Your task to perform on an android device: Show the shopping cart on newegg. Image 0: 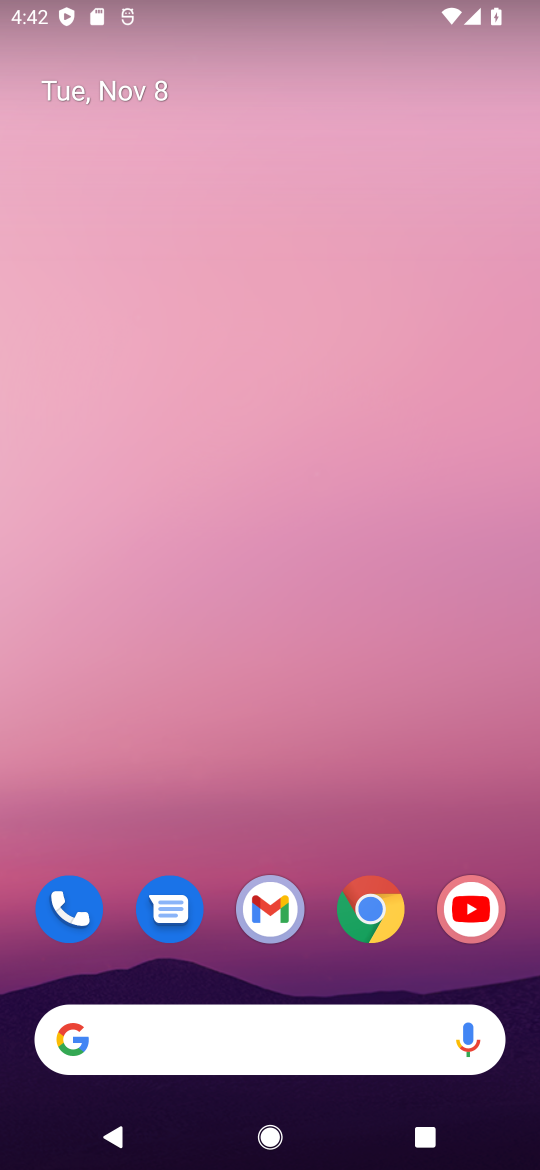
Step 0: click (534, 1035)
Your task to perform on an android device: Show the shopping cart on newegg. Image 1: 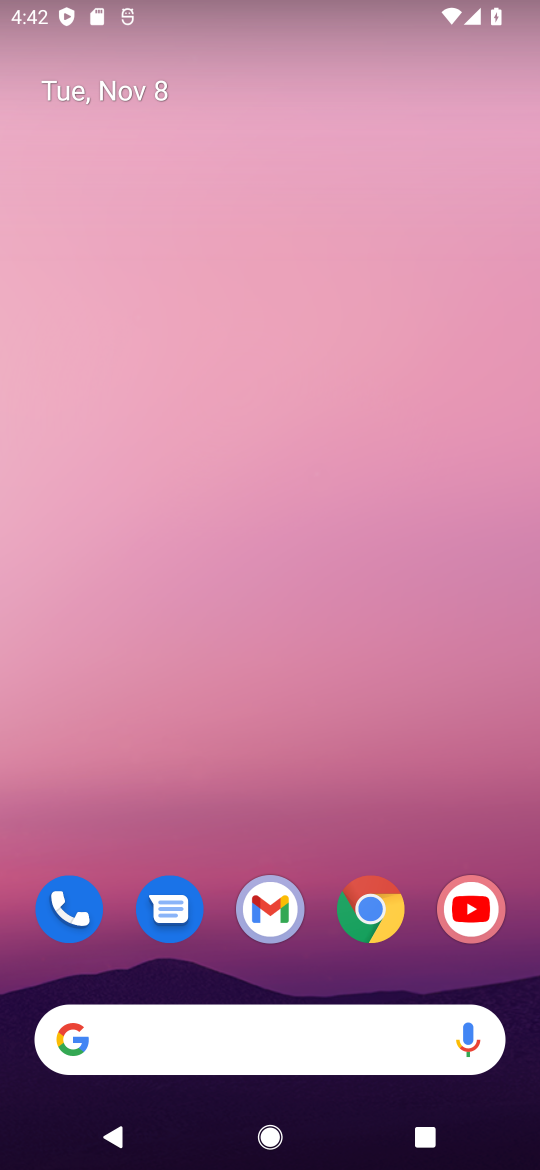
Step 1: click (364, 914)
Your task to perform on an android device: Show the shopping cart on newegg. Image 2: 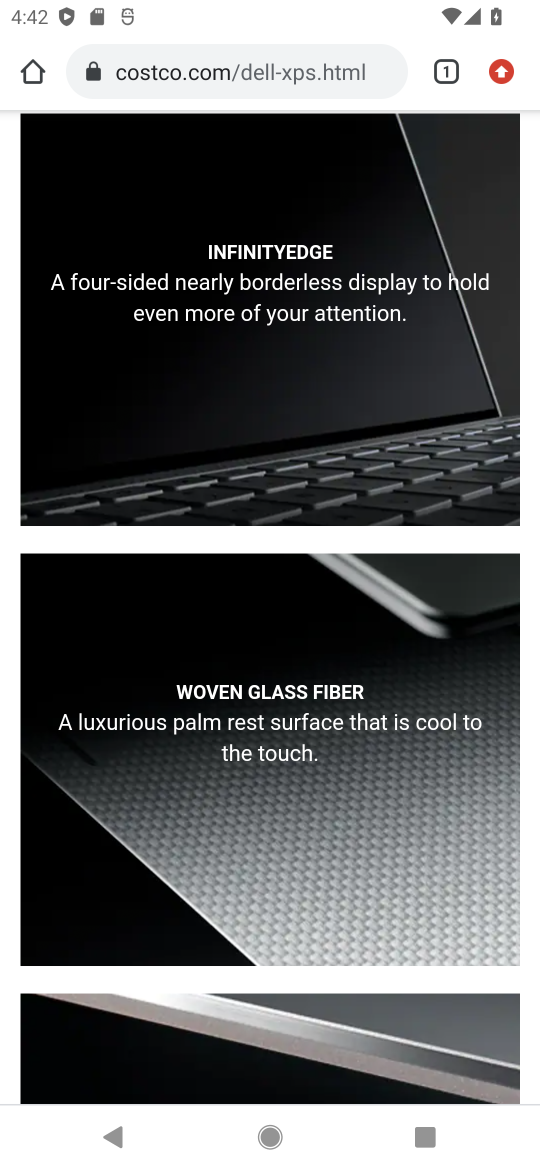
Step 2: click (242, 62)
Your task to perform on an android device: Show the shopping cart on newegg. Image 3: 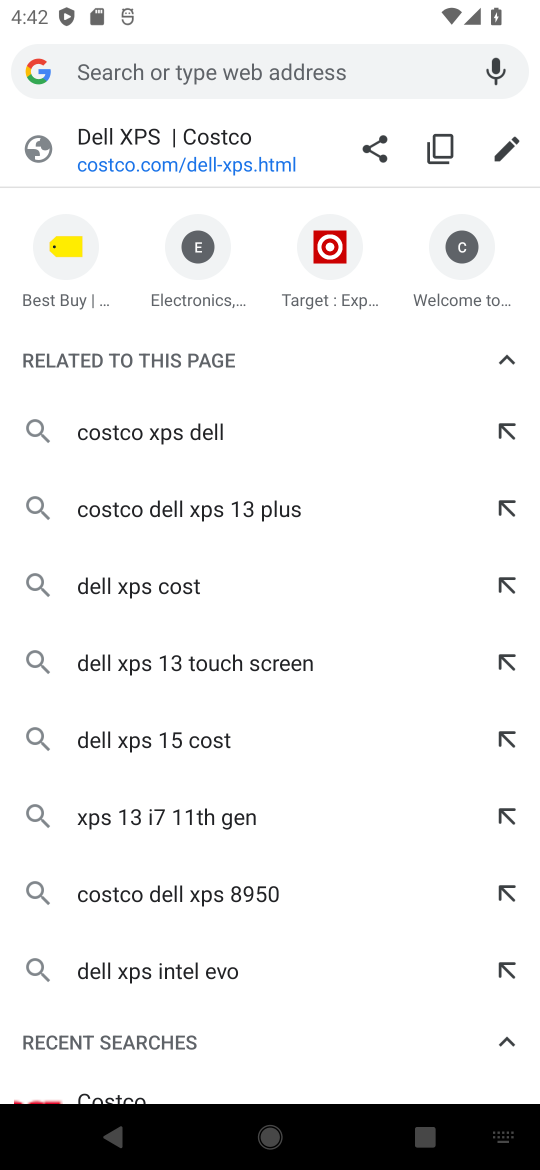
Step 3: type "newegg"
Your task to perform on an android device: Show the shopping cart on newegg. Image 4: 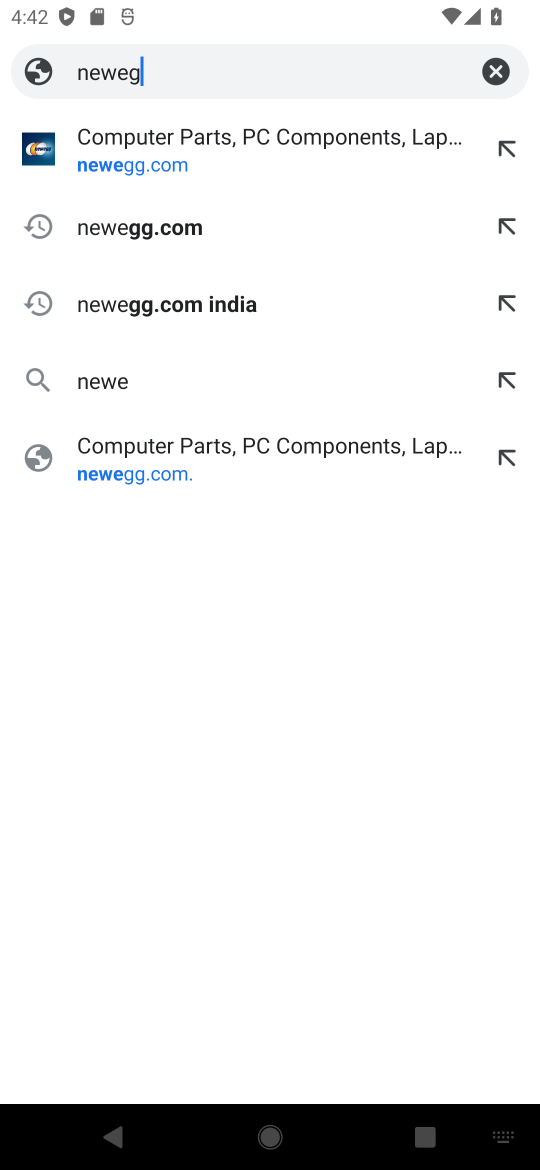
Step 4: press enter
Your task to perform on an android device: Show the shopping cart on newegg. Image 5: 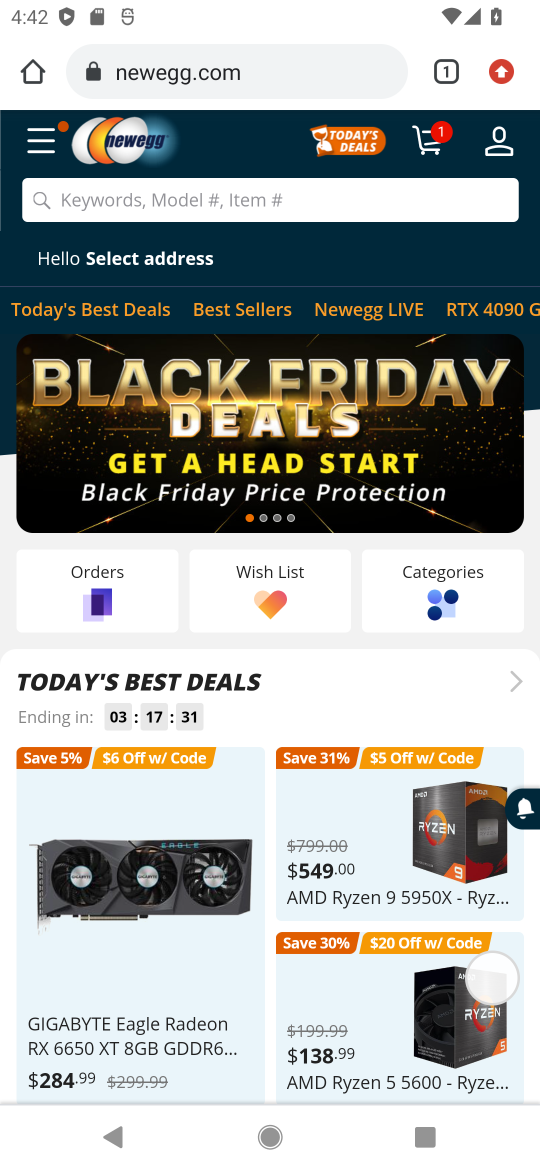
Step 5: click (152, 199)
Your task to perform on an android device: Show the shopping cart on newegg. Image 6: 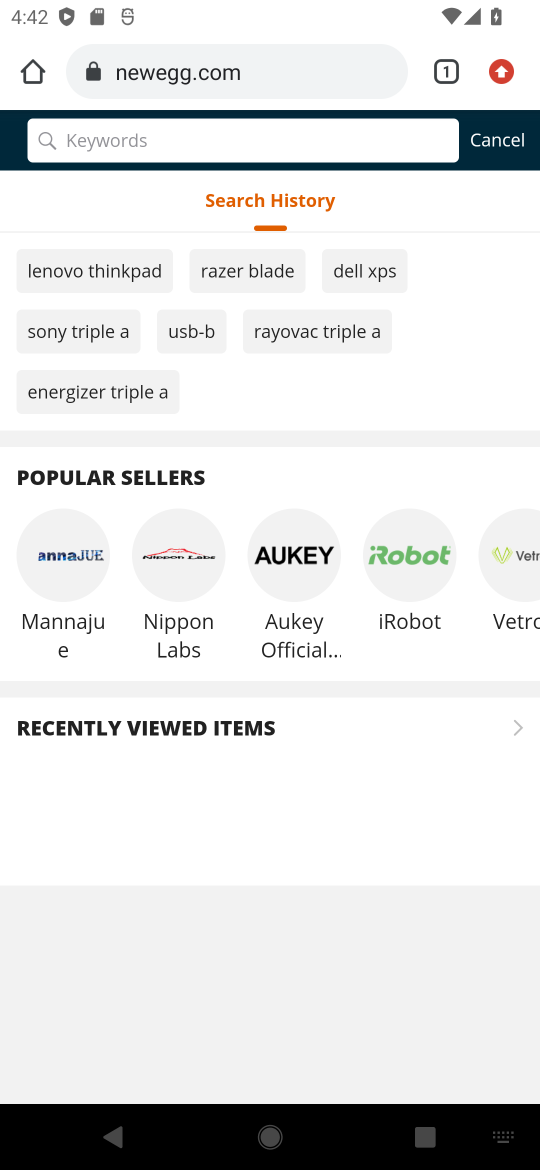
Step 6: click (159, 197)
Your task to perform on an android device: Show the shopping cart on newegg. Image 7: 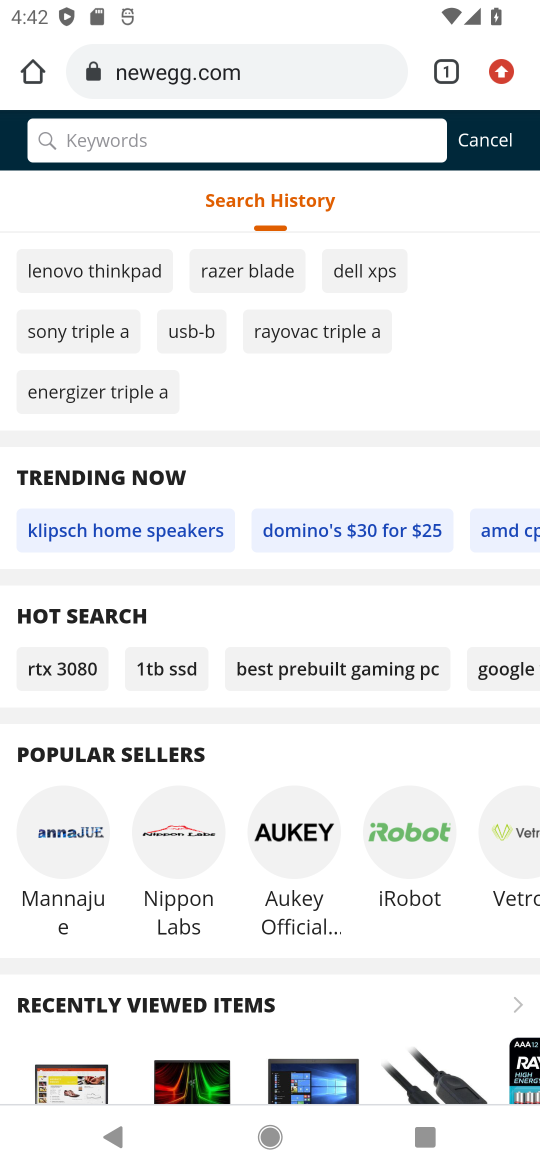
Step 7: click (157, 137)
Your task to perform on an android device: Show the shopping cart on newegg. Image 8: 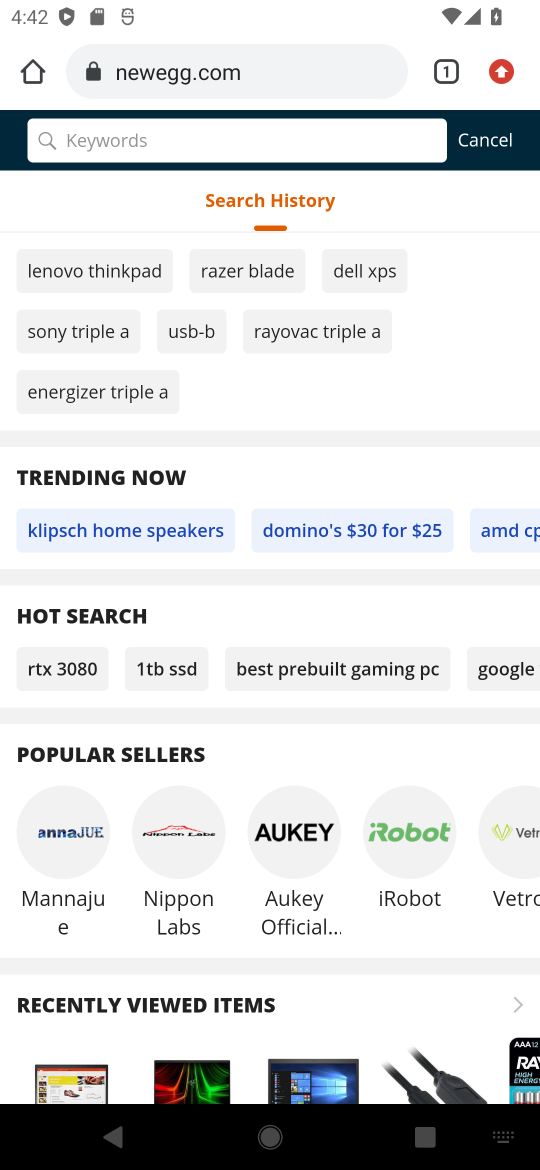
Step 8: click (498, 130)
Your task to perform on an android device: Show the shopping cart on newegg. Image 9: 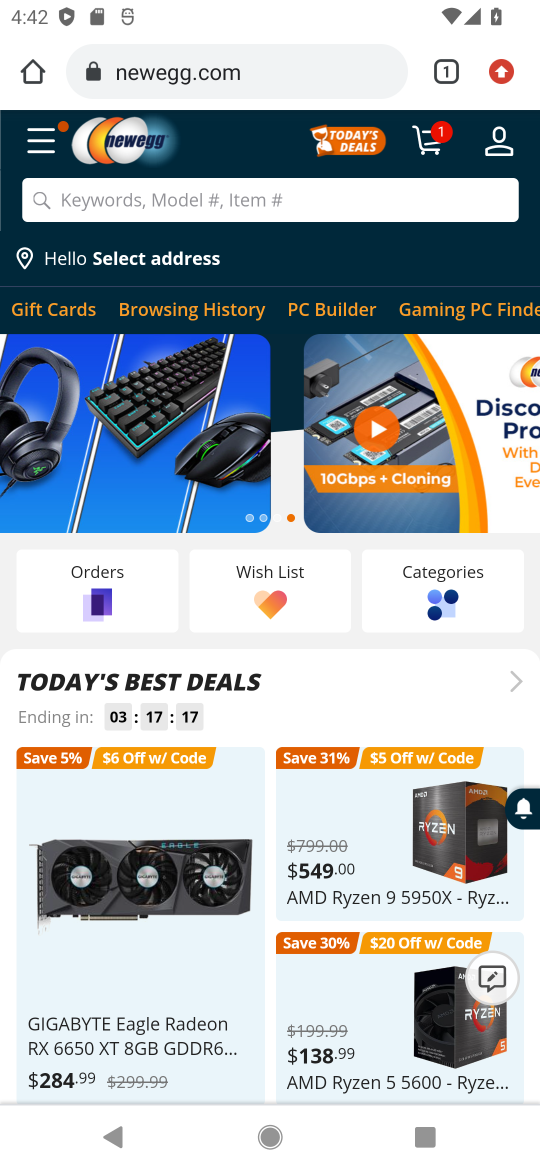
Step 9: click (423, 138)
Your task to perform on an android device: Show the shopping cart on newegg. Image 10: 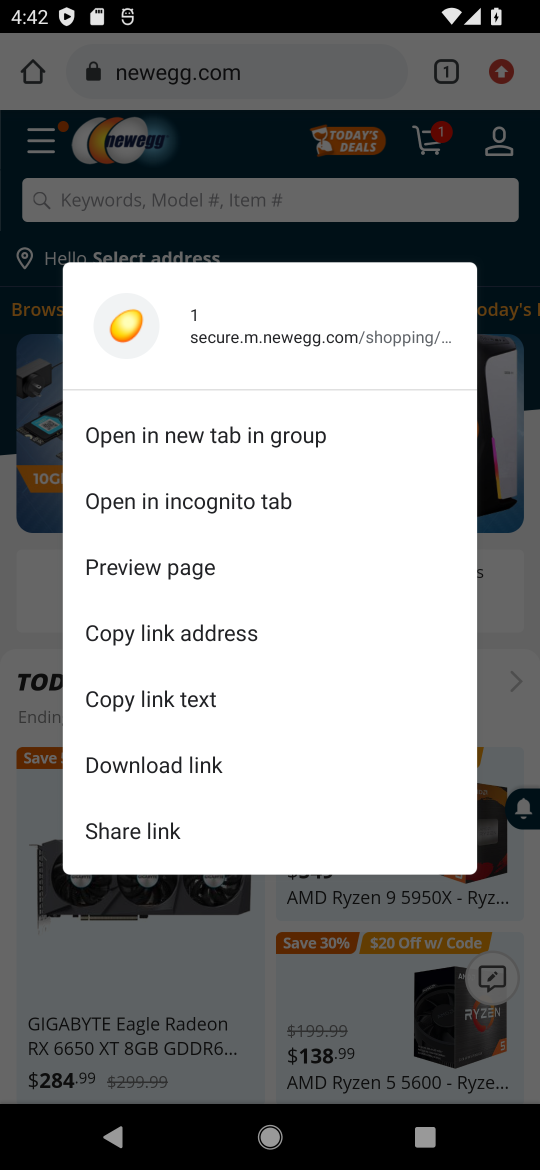
Step 10: click (441, 136)
Your task to perform on an android device: Show the shopping cart on newegg. Image 11: 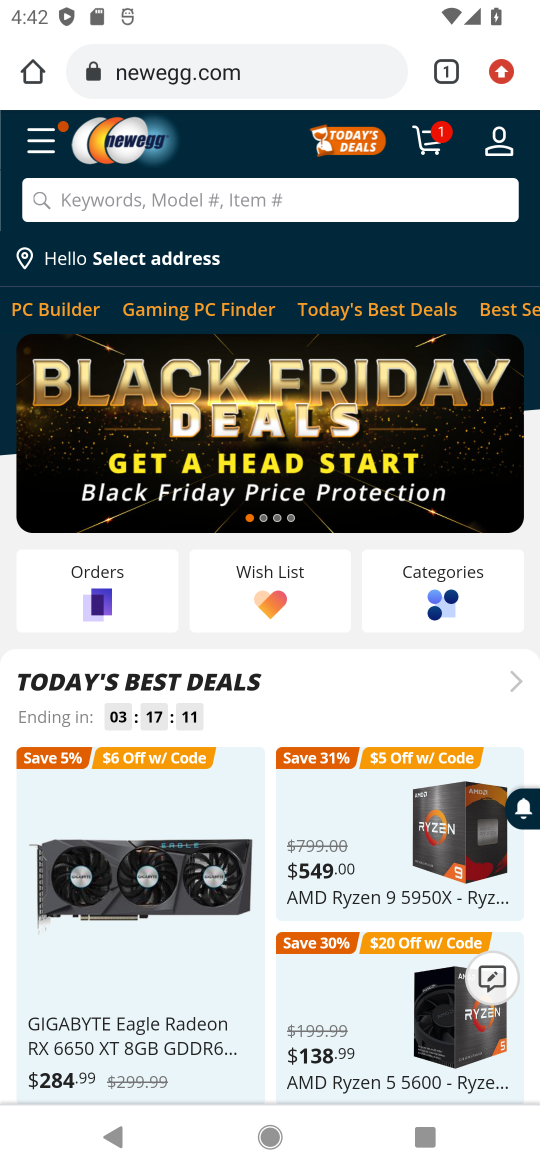
Step 11: click (441, 141)
Your task to perform on an android device: Show the shopping cart on newegg. Image 12: 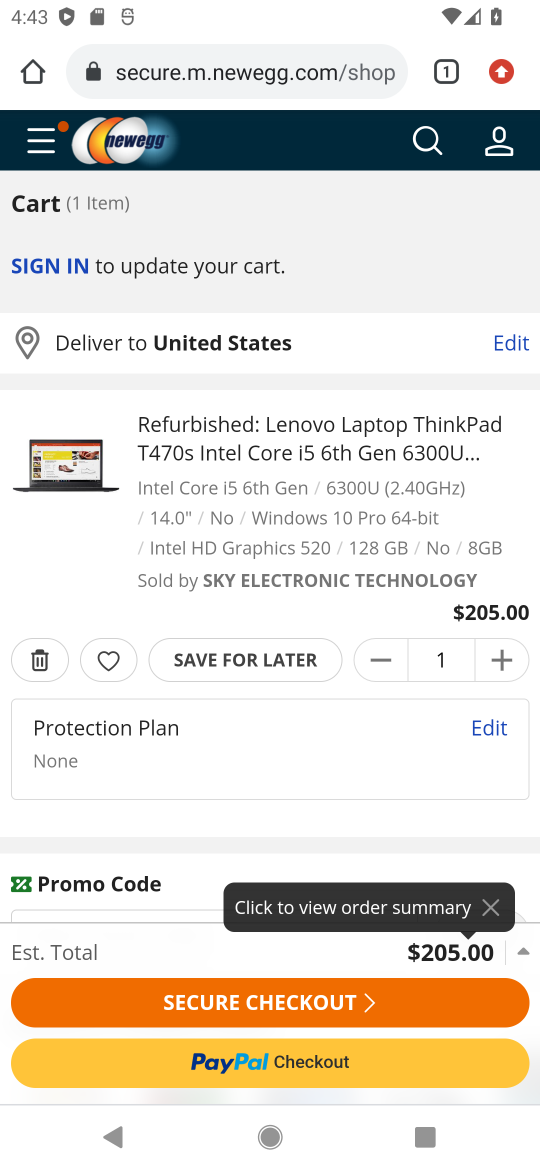
Step 12: task complete